Your task to perform on an android device: read, delete, or share a saved page in the chrome app Image 0: 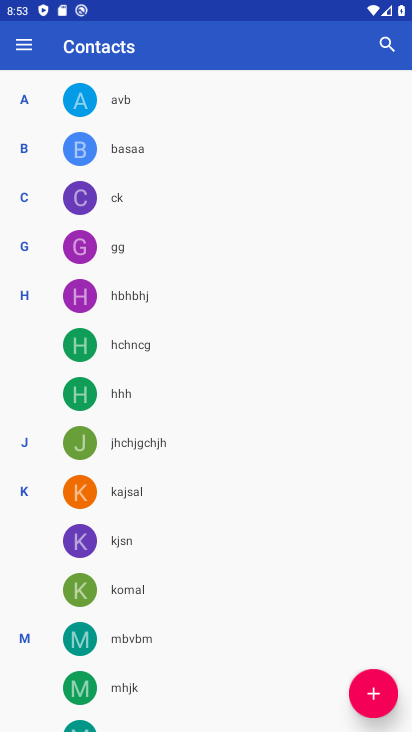
Step 0: press home button
Your task to perform on an android device: read, delete, or share a saved page in the chrome app Image 1: 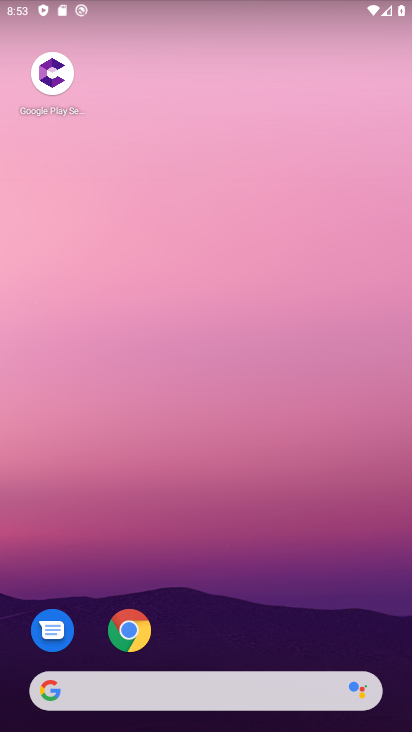
Step 1: click (133, 627)
Your task to perform on an android device: read, delete, or share a saved page in the chrome app Image 2: 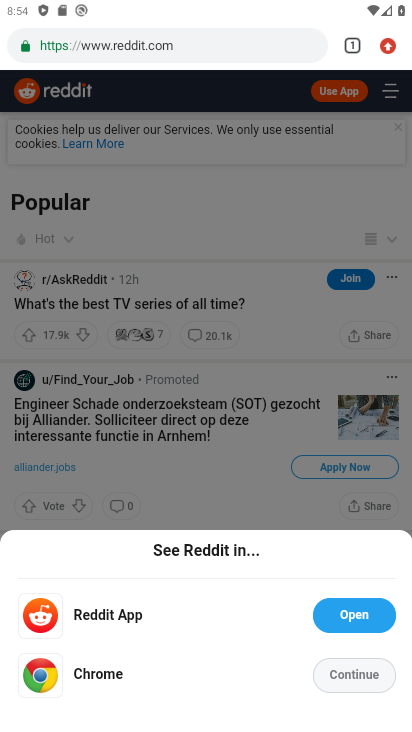
Step 2: click (349, 668)
Your task to perform on an android device: read, delete, or share a saved page in the chrome app Image 3: 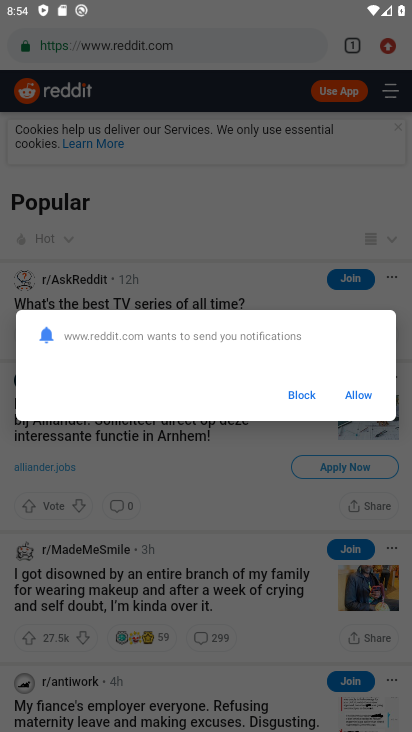
Step 3: click (356, 391)
Your task to perform on an android device: read, delete, or share a saved page in the chrome app Image 4: 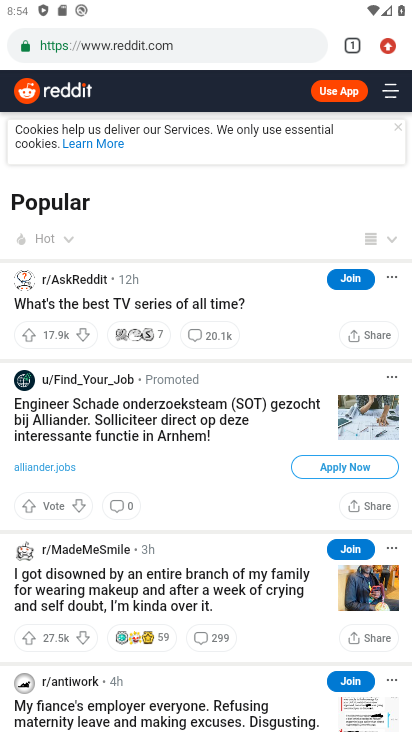
Step 4: click (390, 47)
Your task to perform on an android device: read, delete, or share a saved page in the chrome app Image 5: 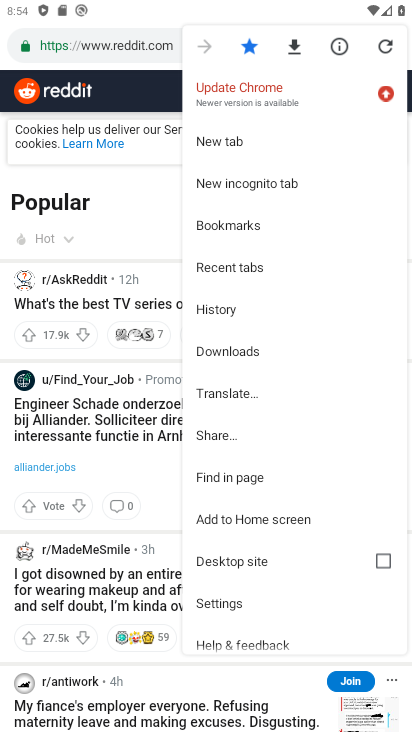
Step 5: click (241, 351)
Your task to perform on an android device: read, delete, or share a saved page in the chrome app Image 6: 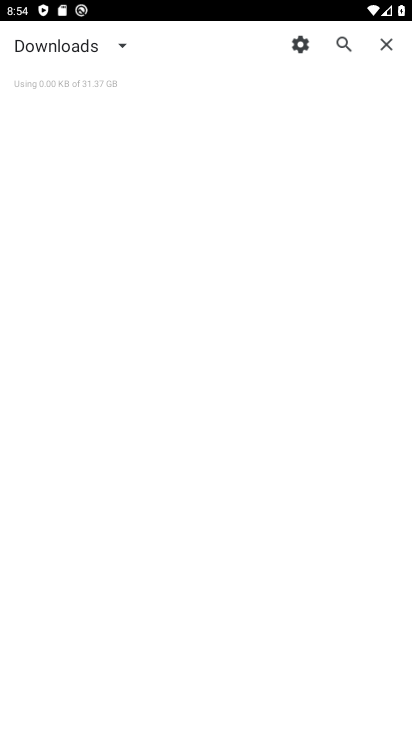
Step 6: task complete